Your task to perform on an android device: change the clock style Image 0: 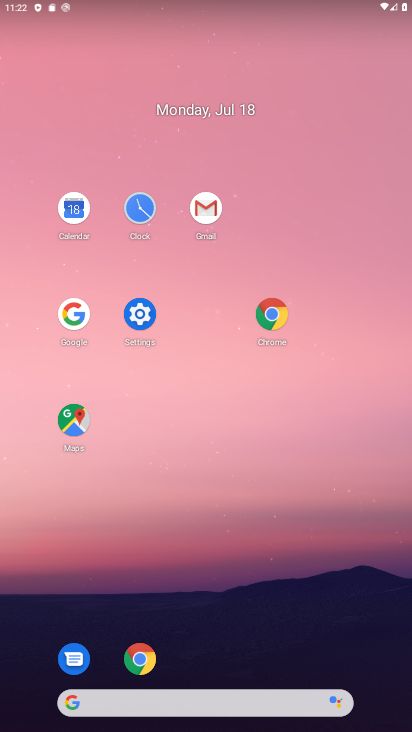
Step 0: click (141, 212)
Your task to perform on an android device: change the clock style Image 1: 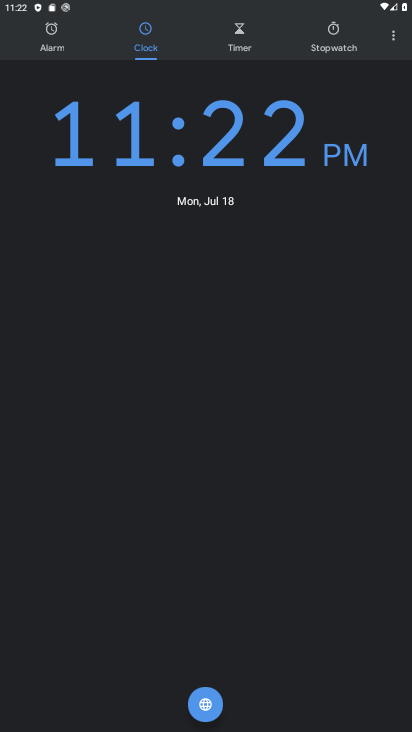
Step 1: click (397, 40)
Your task to perform on an android device: change the clock style Image 2: 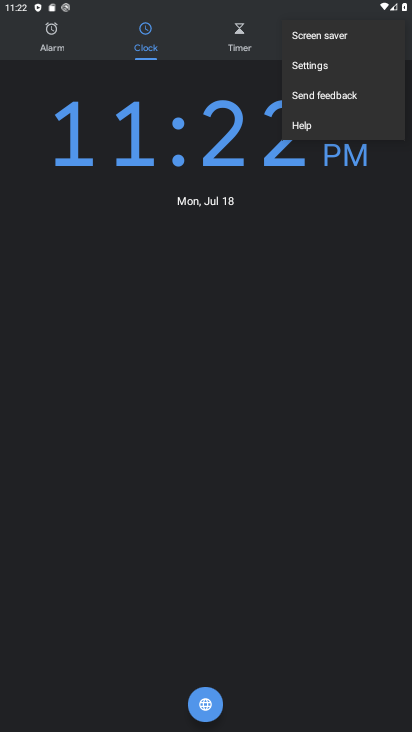
Step 2: click (319, 59)
Your task to perform on an android device: change the clock style Image 3: 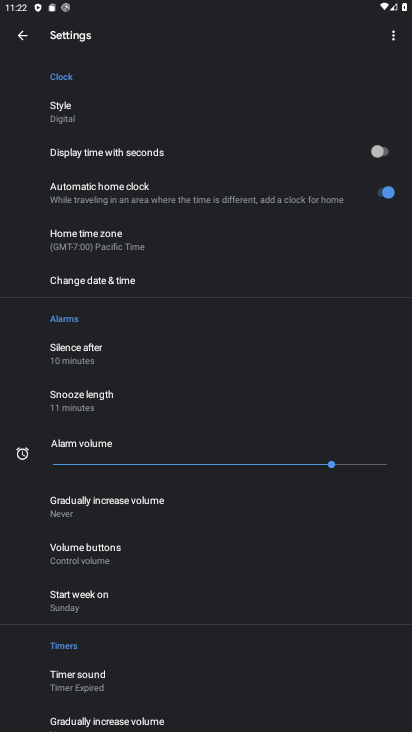
Step 3: click (152, 114)
Your task to perform on an android device: change the clock style Image 4: 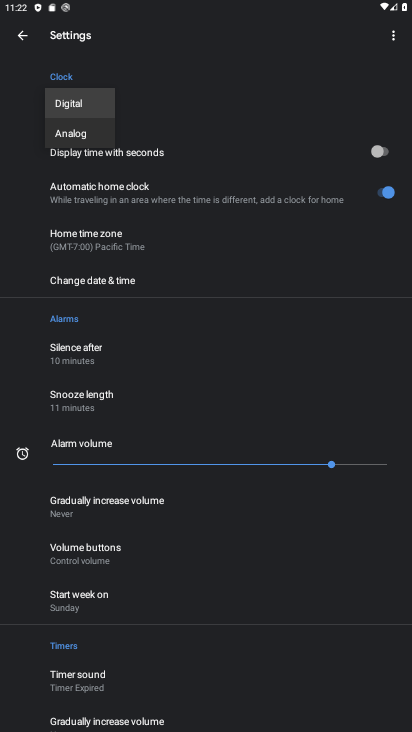
Step 4: click (102, 132)
Your task to perform on an android device: change the clock style Image 5: 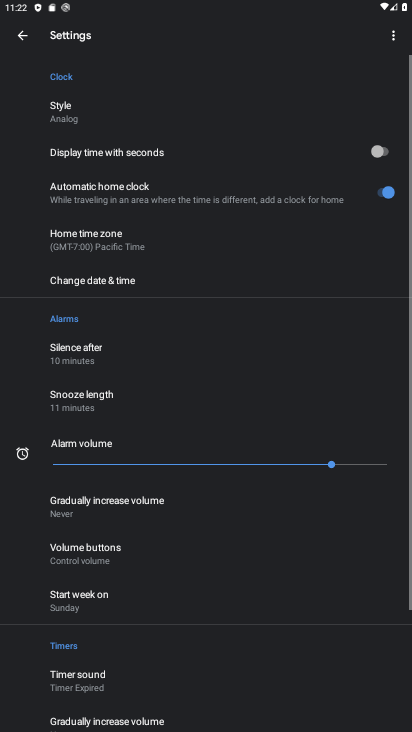
Step 5: task complete